Your task to perform on an android device: set an alarm Image 0: 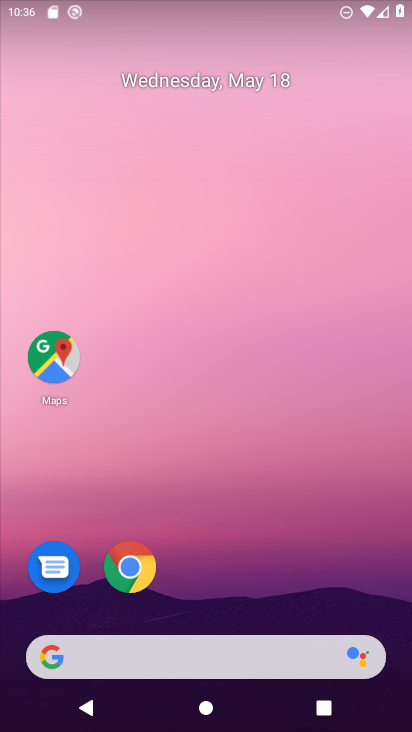
Step 0: drag from (263, 677) to (246, 207)
Your task to perform on an android device: set an alarm Image 1: 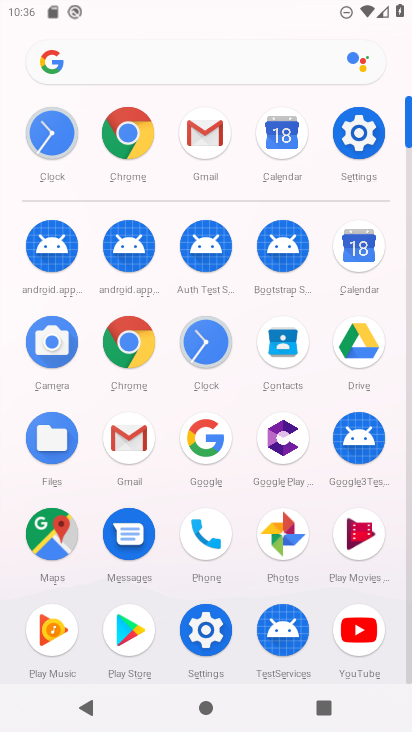
Step 1: click (198, 338)
Your task to perform on an android device: set an alarm Image 2: 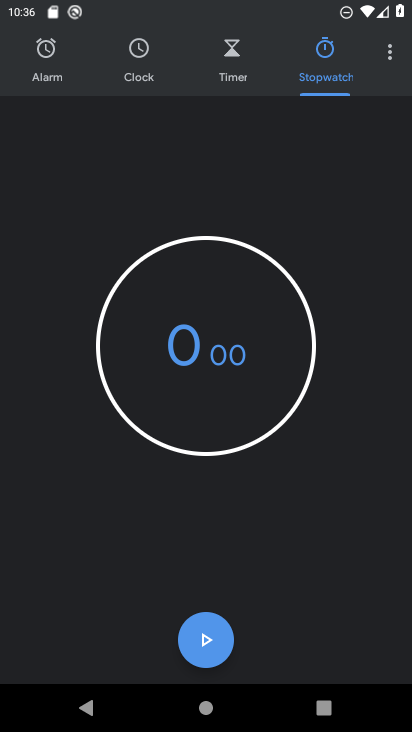
Step 2: click (54, 77)
Your task to perform on an android device: set an alarm Image 3: 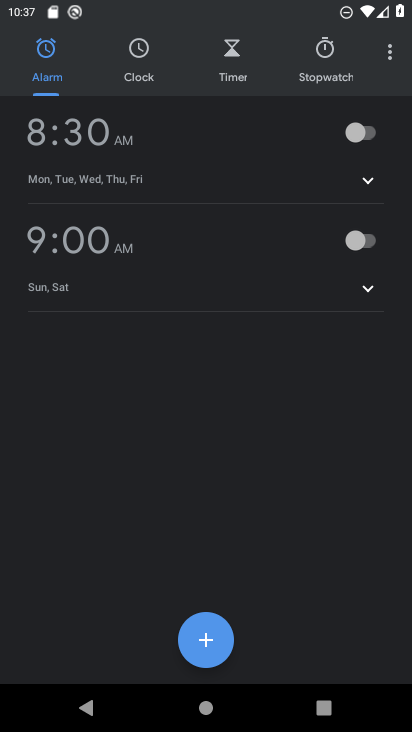
Step 3: click (287, 157)
Your task to perform on an android device: set an alarm Image 4: 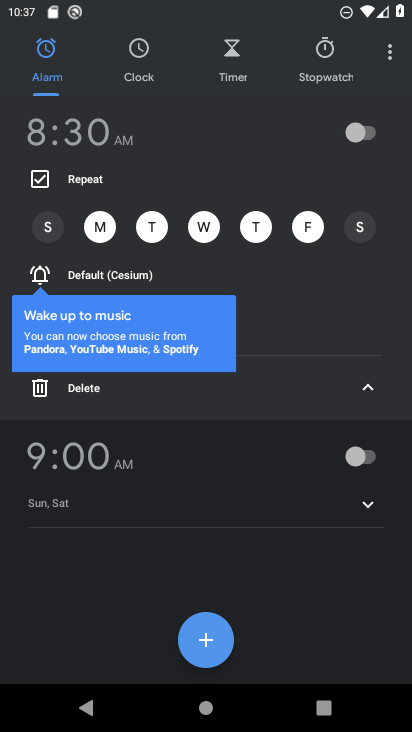
Step 4: click (361, 139)
Your task to perform on an android device: set an alarm Image 5: 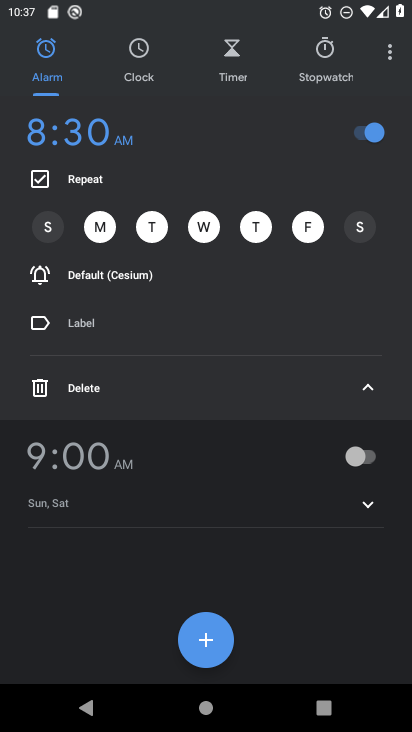
Step 5: task complete